Your task to perform on an android device: Open the web browser Image 0: 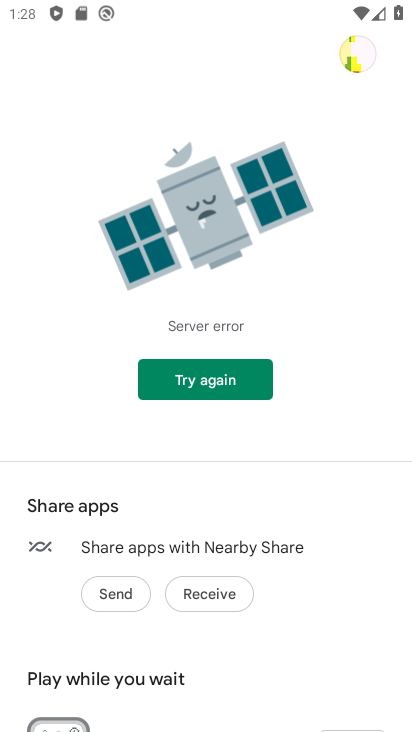
Step 0: press back button
Your task to perform on an android device: Open the web browser Image 1: 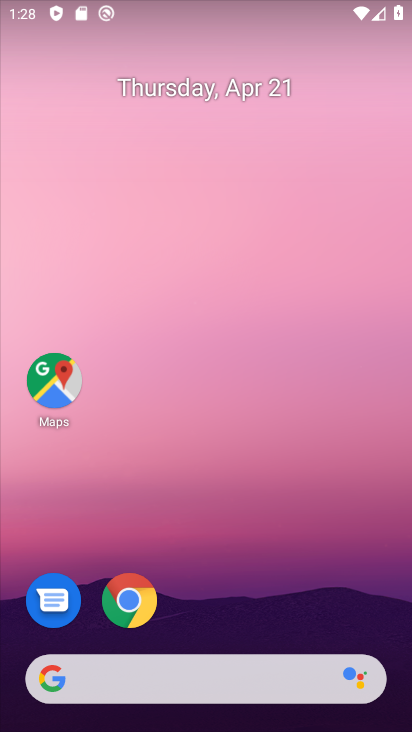
Step 1: drag from (330, 487) to (337, 123)
Your task to perform on an android device: Open the web browser Image 2: 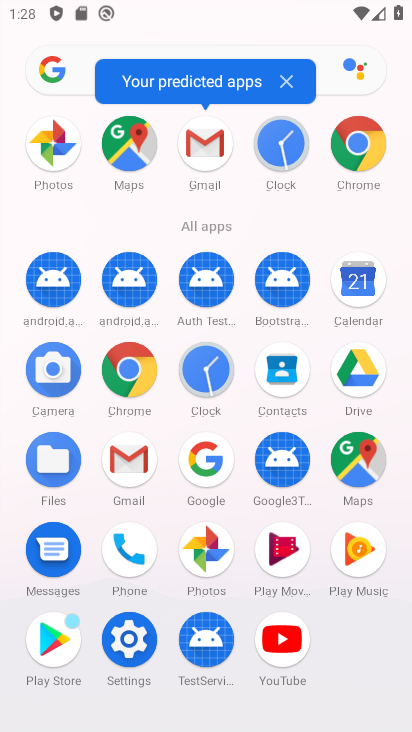
Step 2: click (141, 375)
Your task to perform on an android device: Open the web browser Image 3: 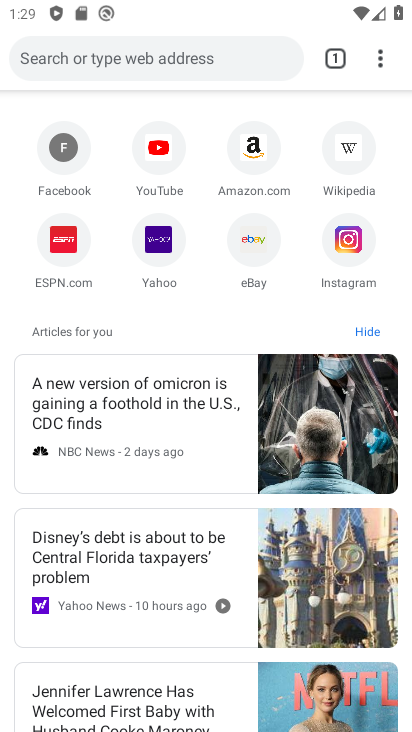
Step 3: task complete